Your task to perform on an android device: check battery use Image 0: 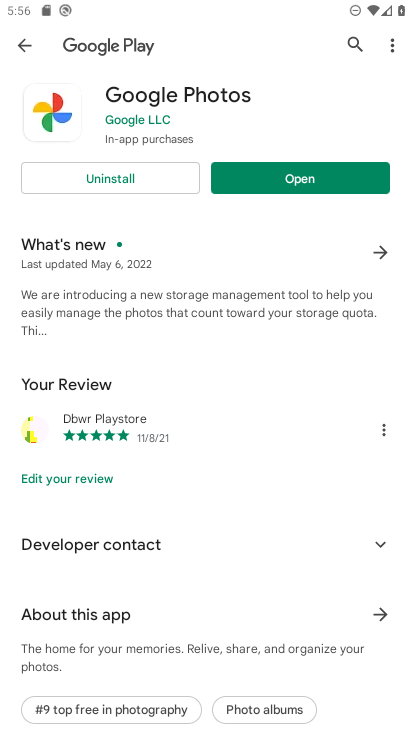
Step 0: press home button
Your task to perform on an android device: check battery use Image 1: 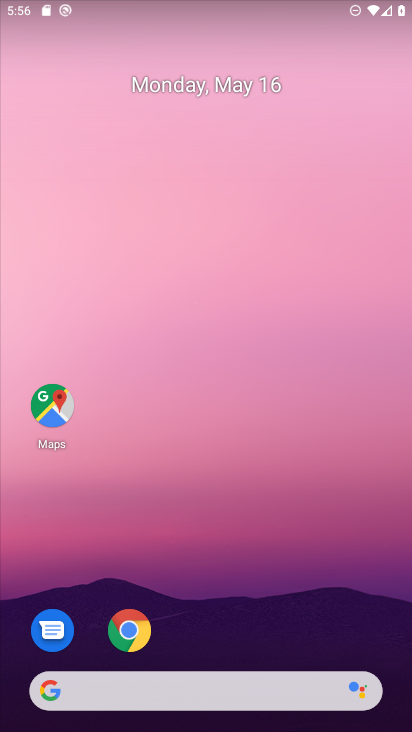
Step 1: drag from (317, 576) to (288, 129)
Your task to perform on an android device: check battery use Image 2: 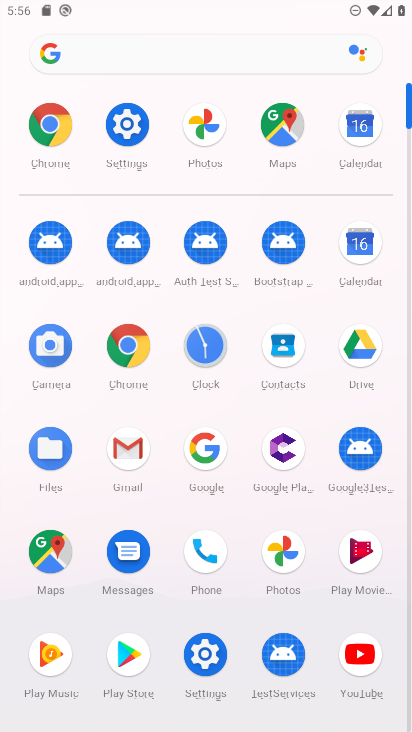
Step 2: click (135, 123)
Your task to perform on an android device: check battery use Image 3: 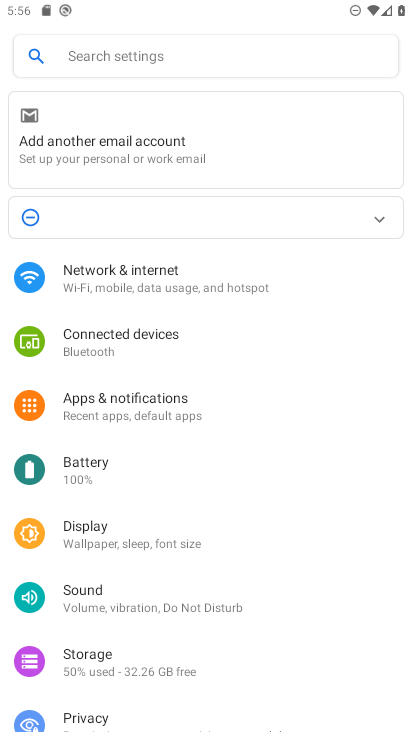
Step 3: click (88, 465)
Your task to perform on an android device: check battery use Image 4: 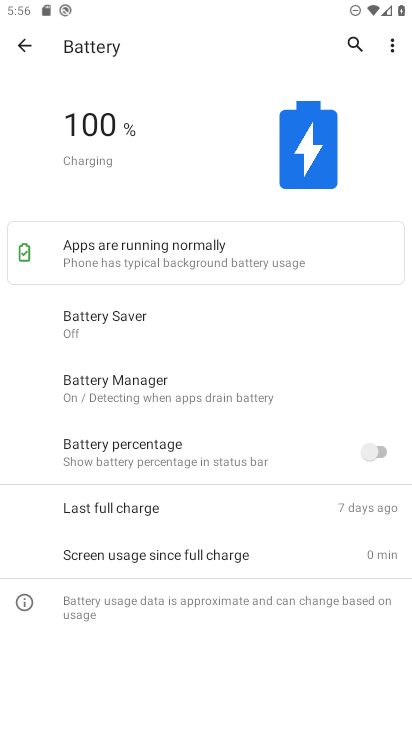
Step 4: task complete